Your task to perform on an android device: toggle translation in the chrome app Image 0: 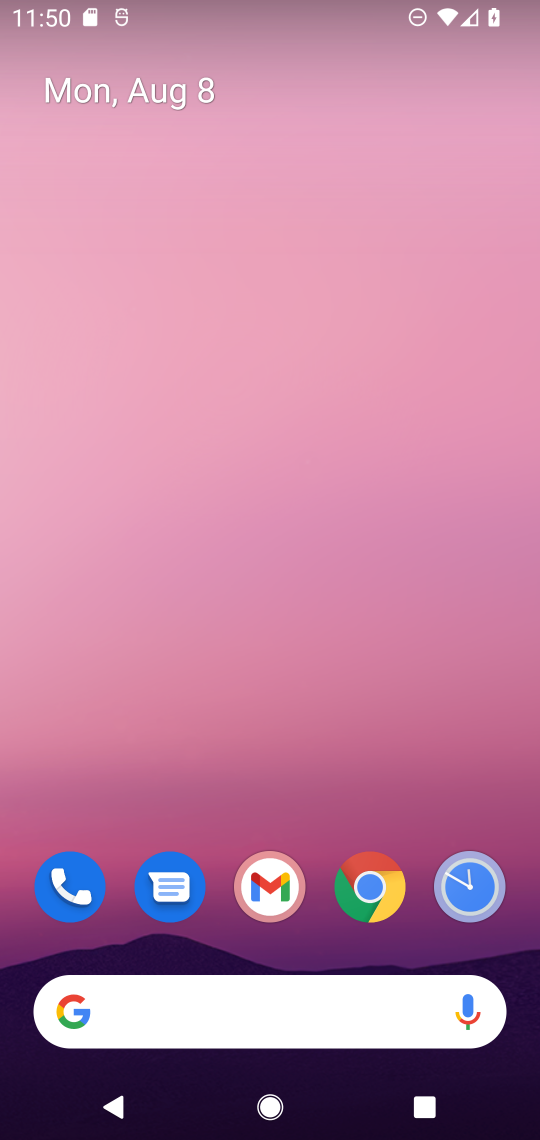
Step 0: click (371, 884)
Your task to perform on an android device: toggle translation in the chrome app Image 1: 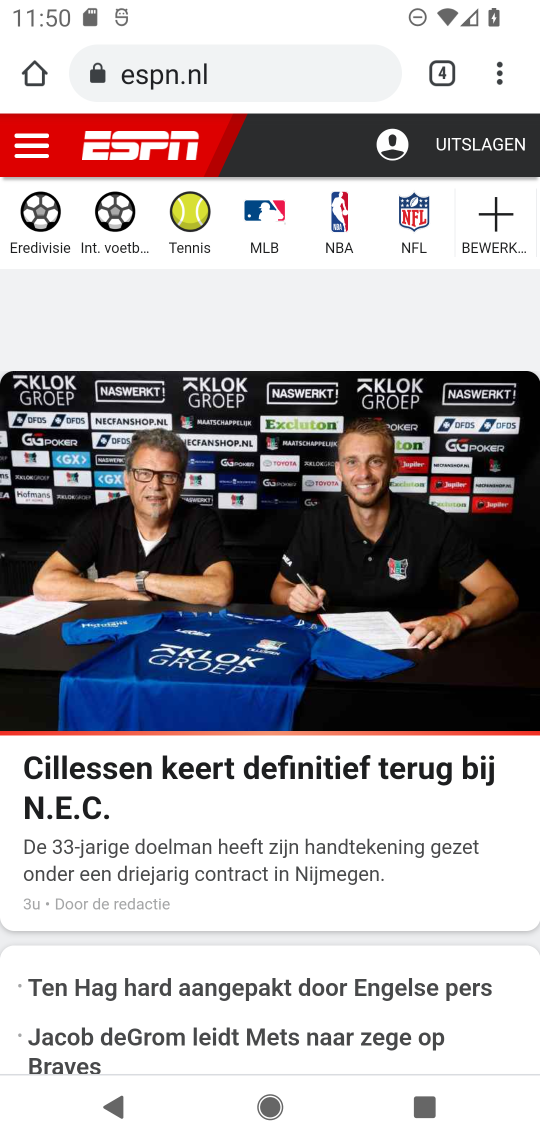
Step 1: click (507, 74)
Your task to perform on an android device: toggle translation in the chrome app Image 2: 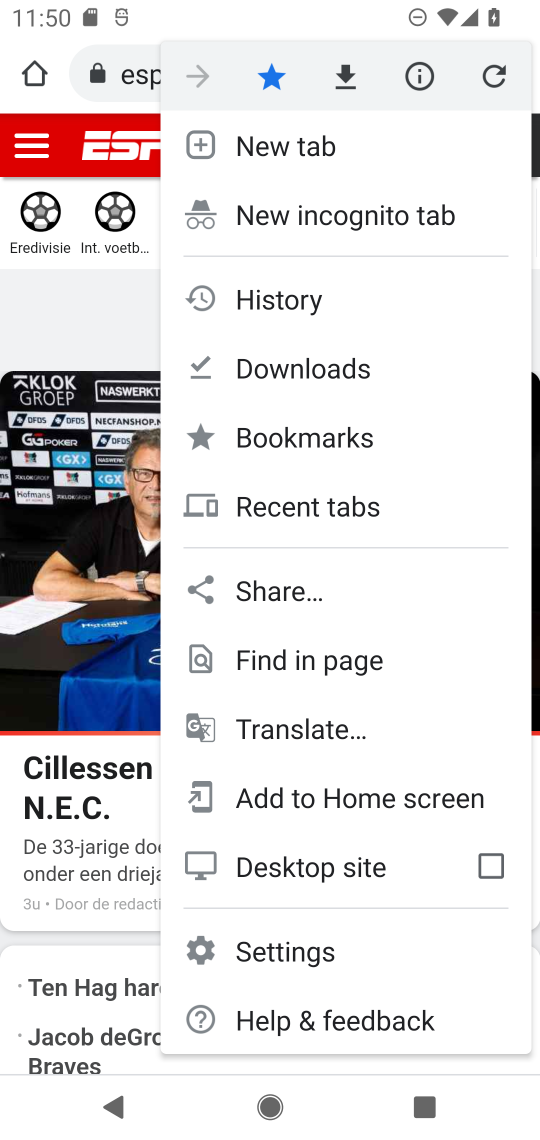
Step 2: click (292, 937)
Your task to perform on an android device: toggle translation in the chrome app Image 3: 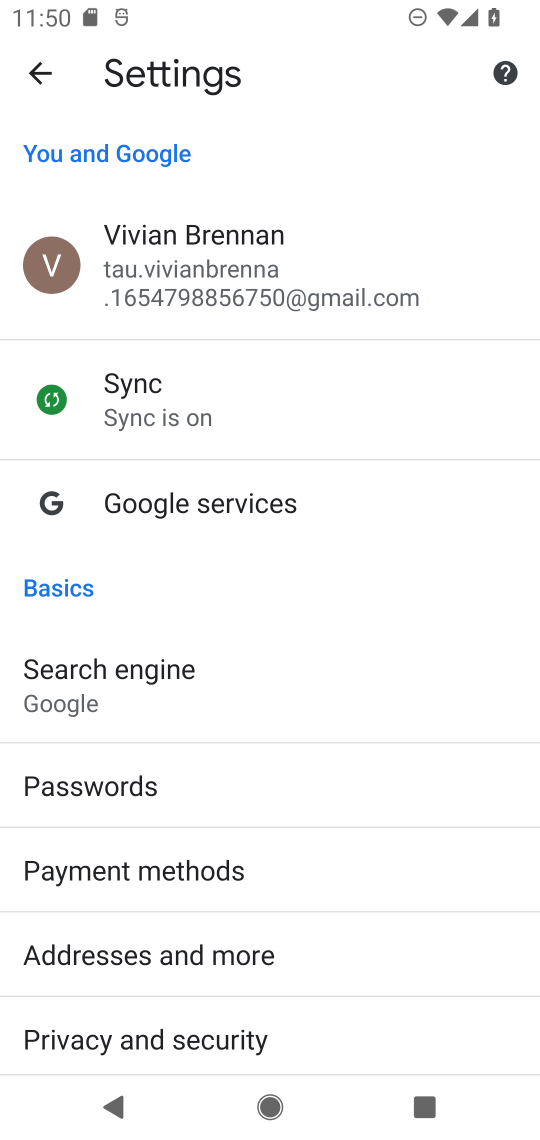
Step 3: drag from (294, 842) to (235, 220)
Your task to perform on an android device: toggle translation in the chrome app Image 4: 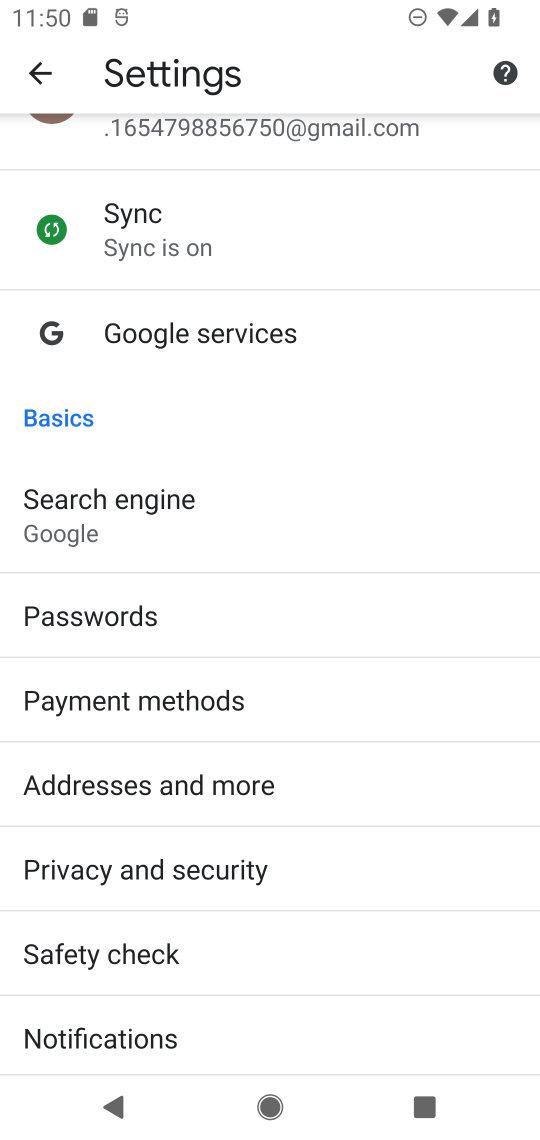
Step 4: drag from (364, 842) to (334, 301)
Your task to perform on an android device: toggle translation in the chrome app Image 5: 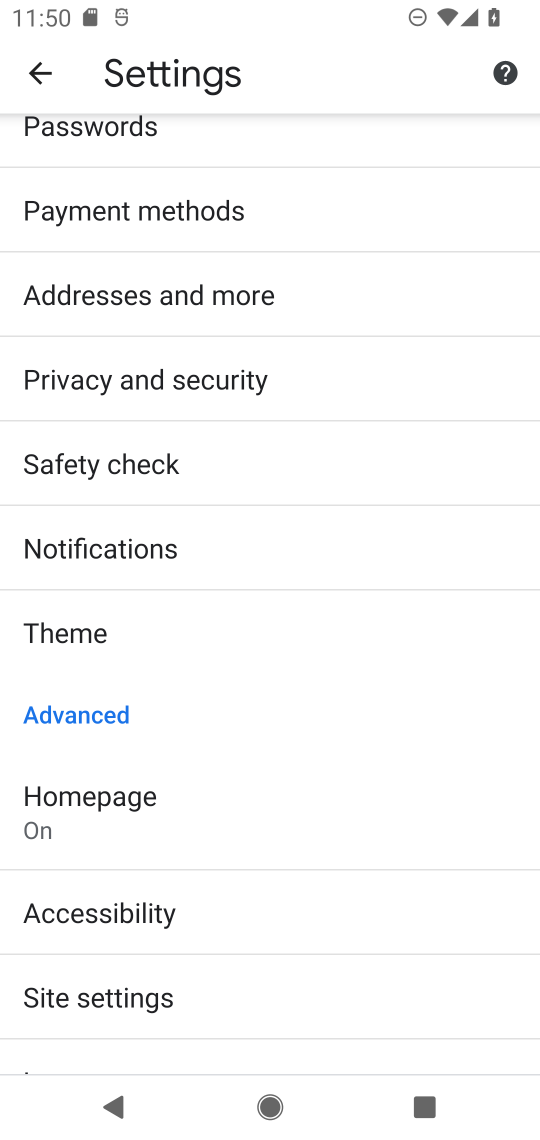
Step 5: drag from (292, 827) to (264, 355)
Your task to perform on an android device: toggle translation in the chrome app Image 6: 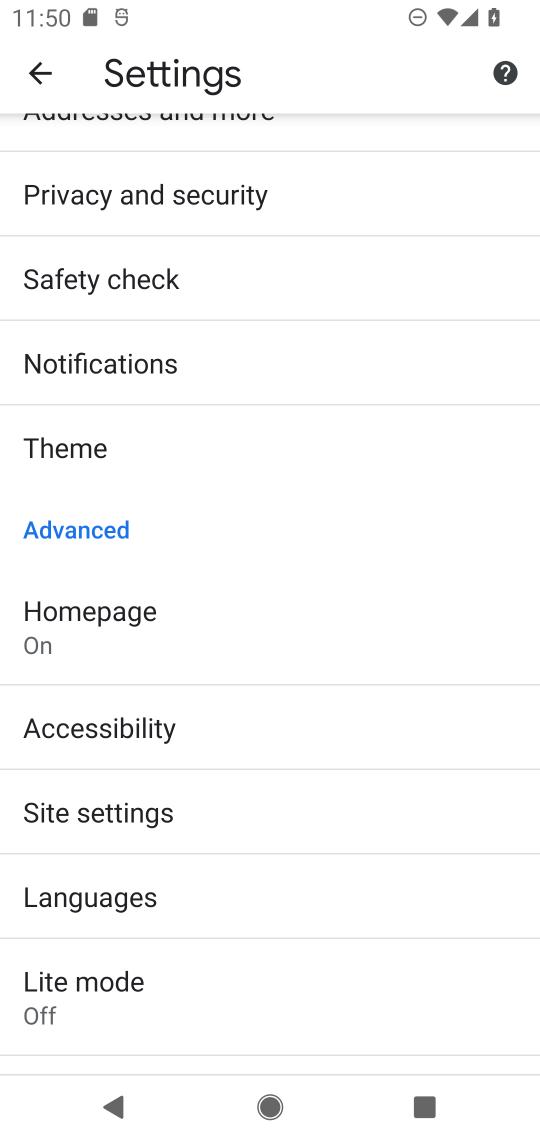
Step 6: click (75, 895)
Your task to perform on an android device: toggle translation in the chrome app Image 7: 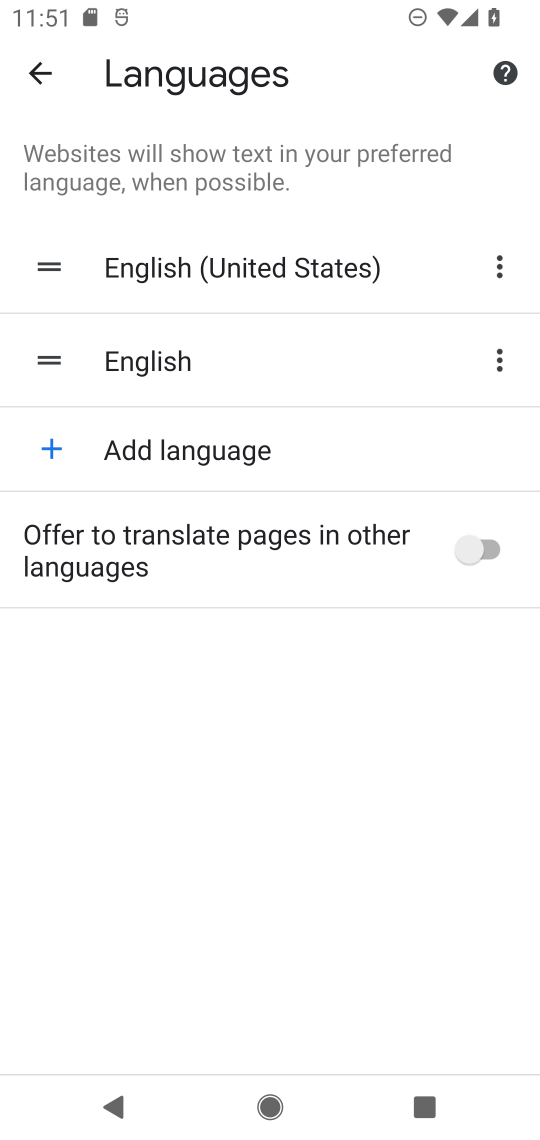
Step 7: click (482, 552)
Your task to perform on an android device: toggle translation in the chrome app Image 8: 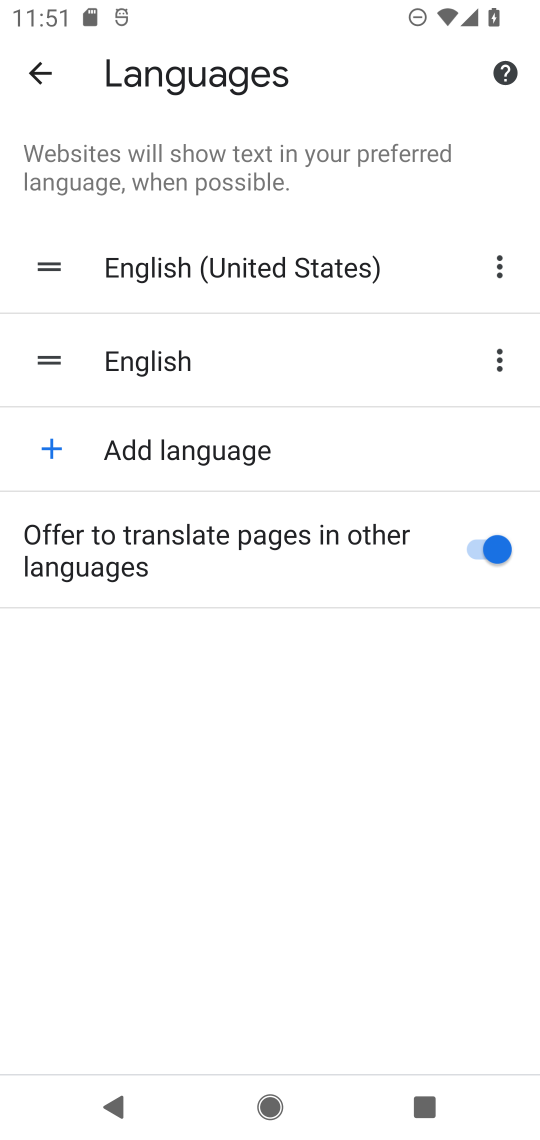
Step 8: task complete